Your task to perform on an android device: Is it going to rain tomorrow? Image 0: 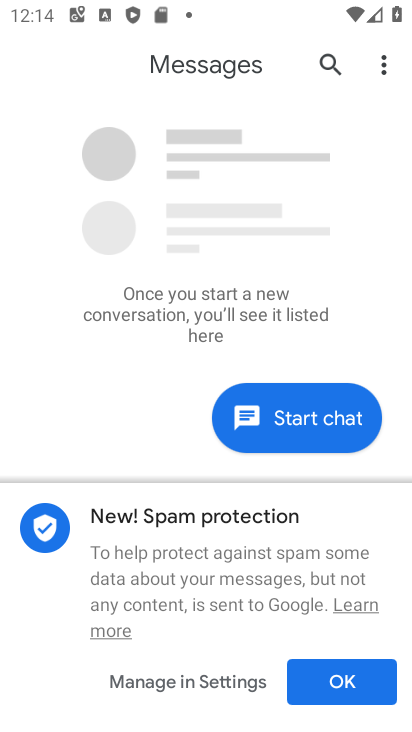
Step 0: press home button
Your task to perform on an android device: Is it going to rain tomorrow? Image 1: 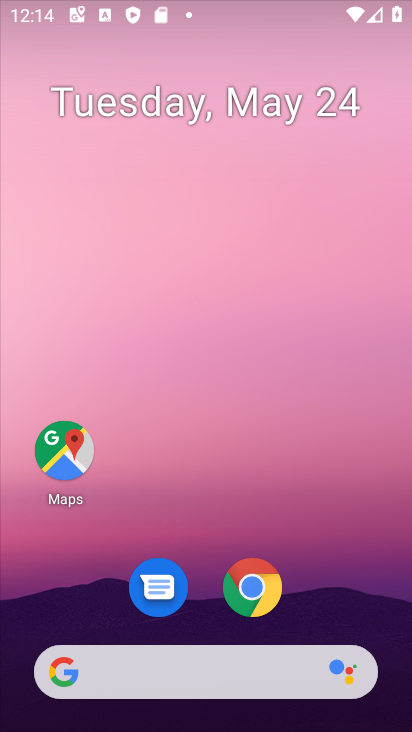
Step 1: click (228, 690)
Your task to perform on an android device: Is it going to rain tomorrow? Image 2: 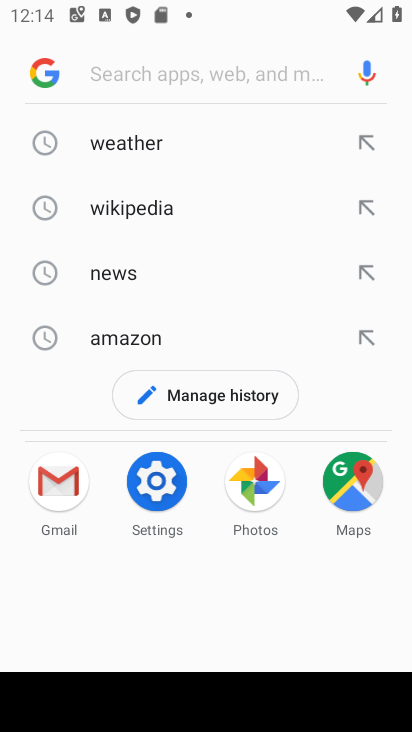
Step 2: type "Is it going to rain tomorrow?"
Your task to perform on an android device: Is it going to rain tomorrow? Image 3: 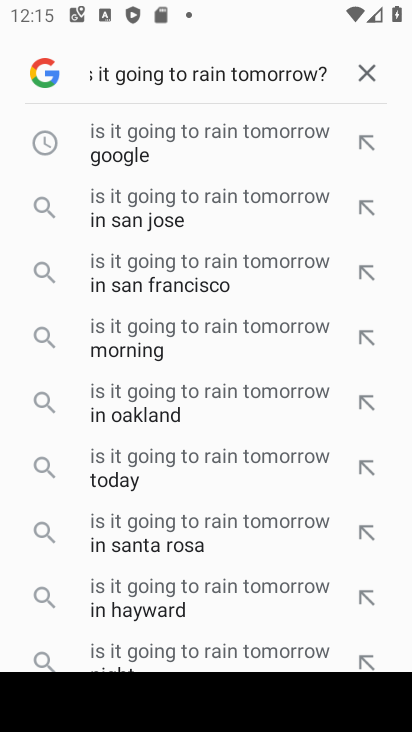
Step 3: click (170, 130)
Your task to perform on an android device: Is it going to rain tomorrow? Image 4: 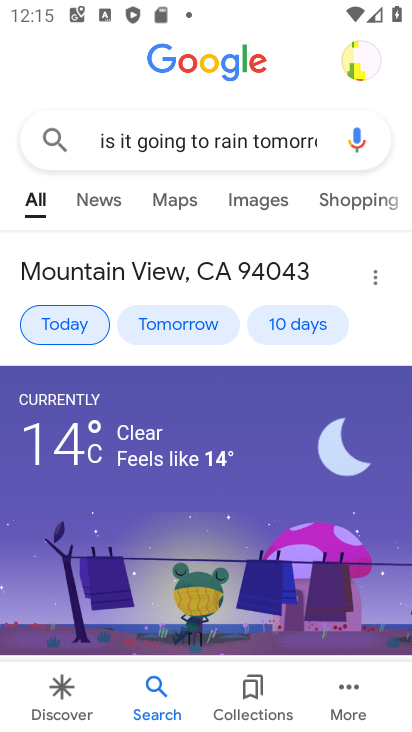
Step 4: task complete